Your task to perform on an android device: Is it going to rain tomorrow? Image 0: 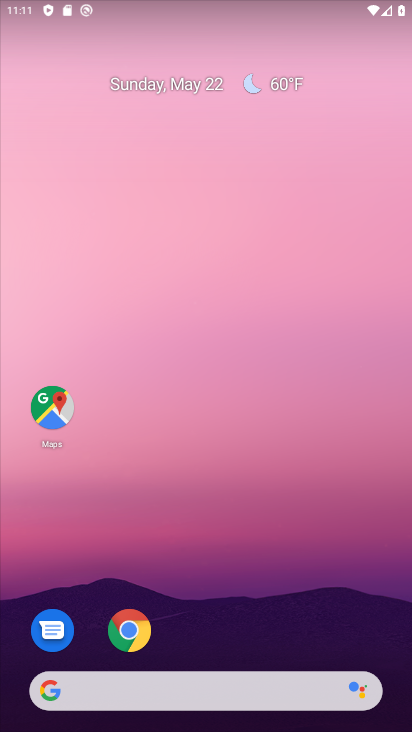
Step 0: drag from (301, 598) to (239, 233)
Your task to perform on an android device: Is it going to rain tomorrow? Image 1: 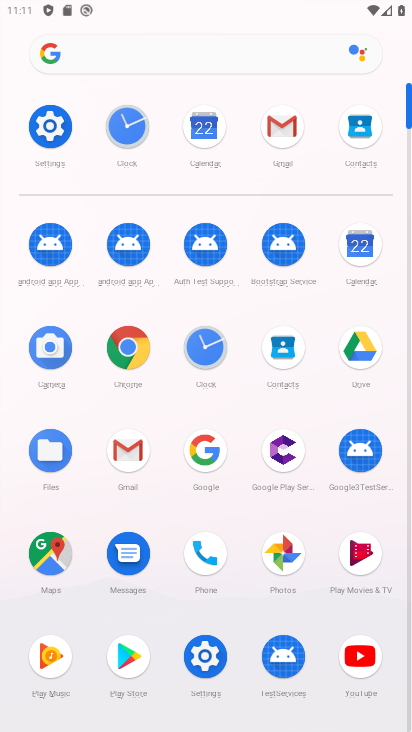
Step 1: click (199, 451)
Your task to perform on an android device: Is it going to rain tomorrow? Image 2: 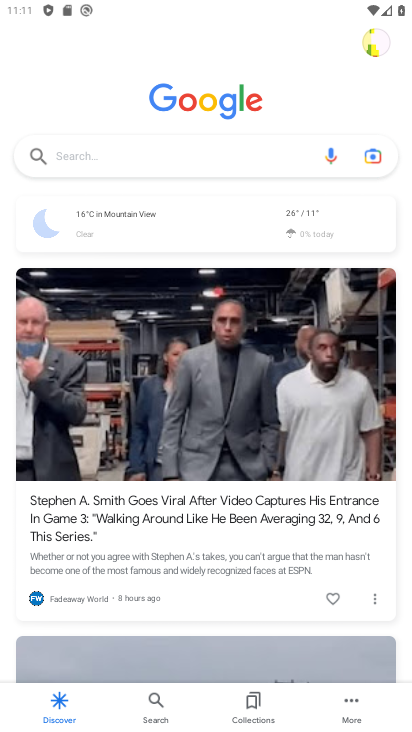
Step 2: click (170, 158)
Your task to perform on an android device: Is it going to rain tomorrow? Image 3: 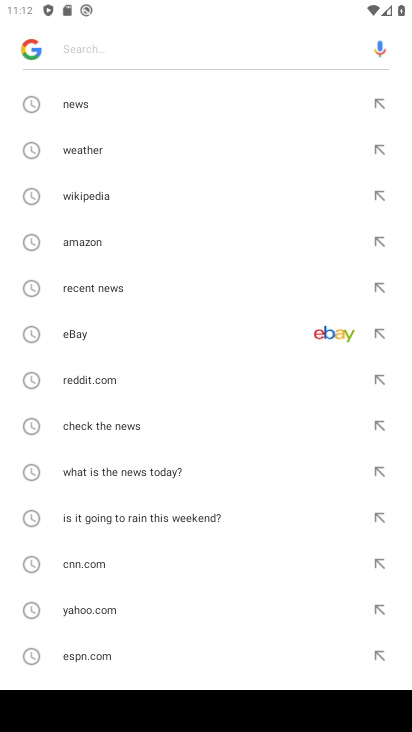
Step 3: type "Is it going to rain tomorrow"
Your task to perform on an android device: Is it going to rain tomorrow? Image 4: 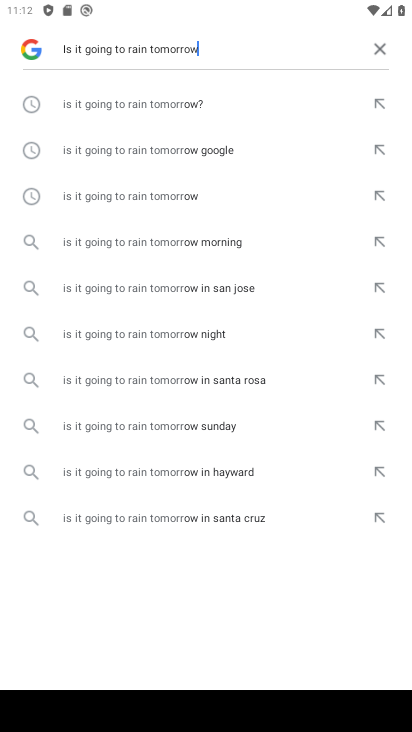
Step 4: type ""
Your task to perform on an android device: Is it going to rain tomorrow? Image 5: 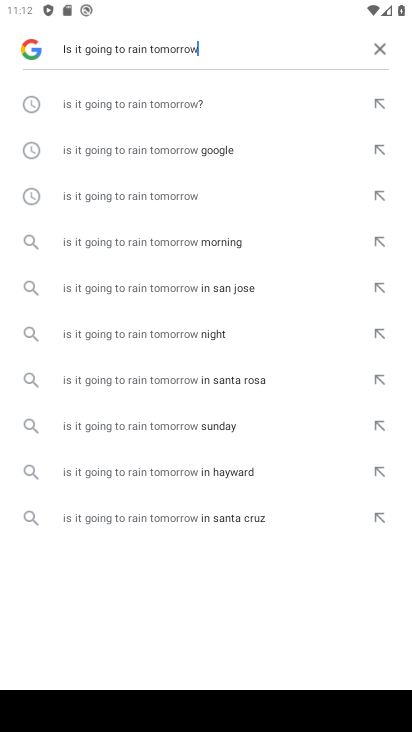
Step 5: click (157, 105)
Your task to perform on an android device: Is it going to rain tomorrow? Image 6: 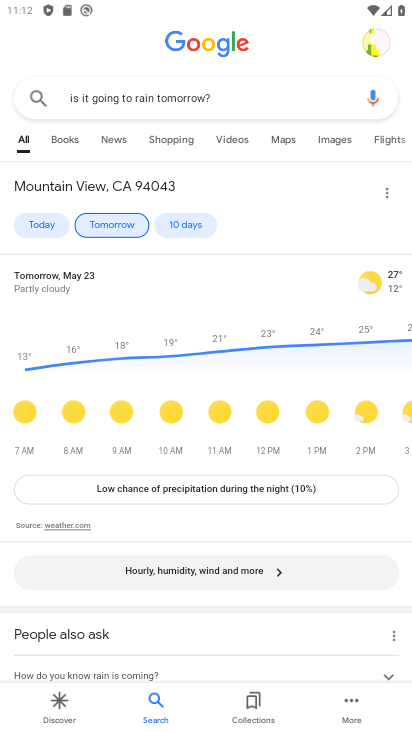
Step 6: task complete